Your task to perform on an android device: Open internet settings Image 0: 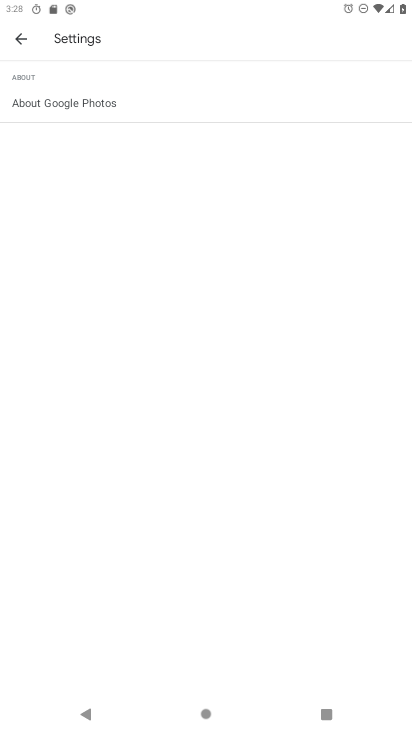
Step 0: press home button
Your task to perform on an android device: Open internet settings Image 1: 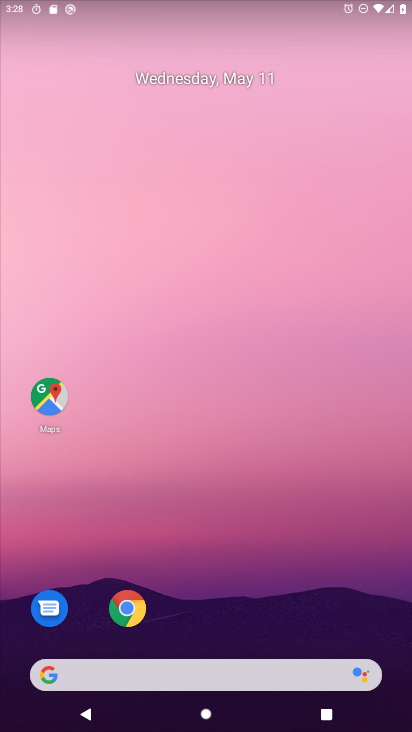
Step 1: drag from (188, 648) to (267, 98)
Your task to perform on an android device: Open internet settings Image 2: 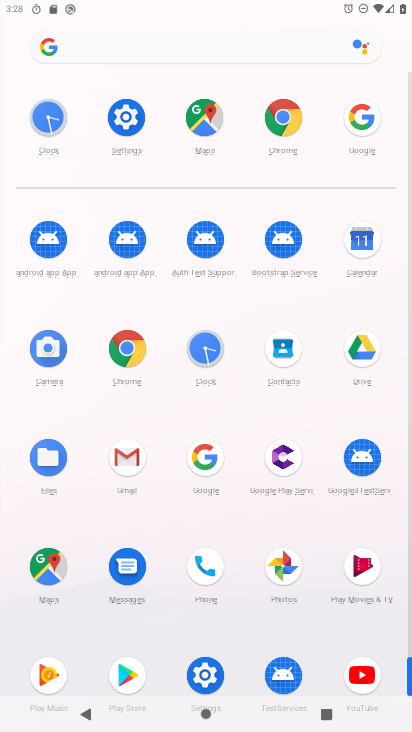
Step 2: click (119, 124)
Your task to perform on an android device: Open internet settings Image 3: 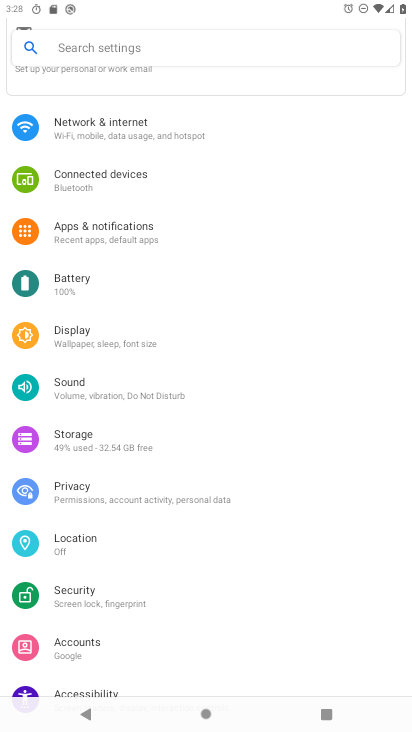
Step 3: click (94, 128)
Your task to perform on an android device: Open internet settings Image 4: 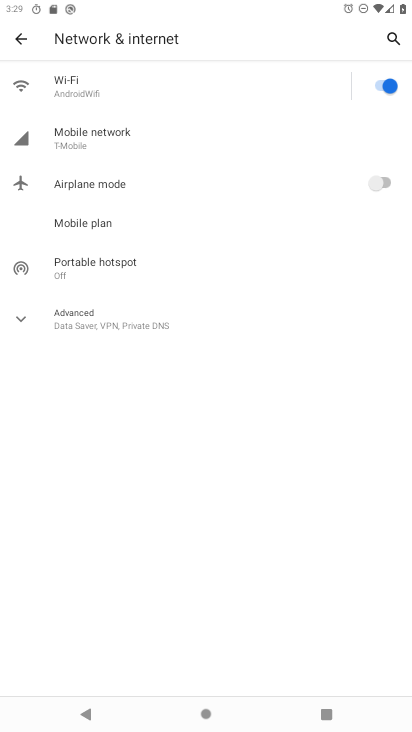
Step 4: click (109, 146)
Your task to perform on an android device: Open internet settings Image 5: 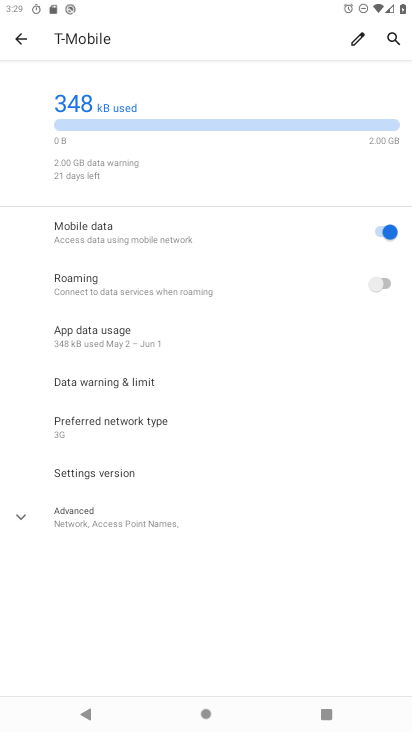
Step 5: task complete